Your task to perform on an android device: Open internet settings Image 0: 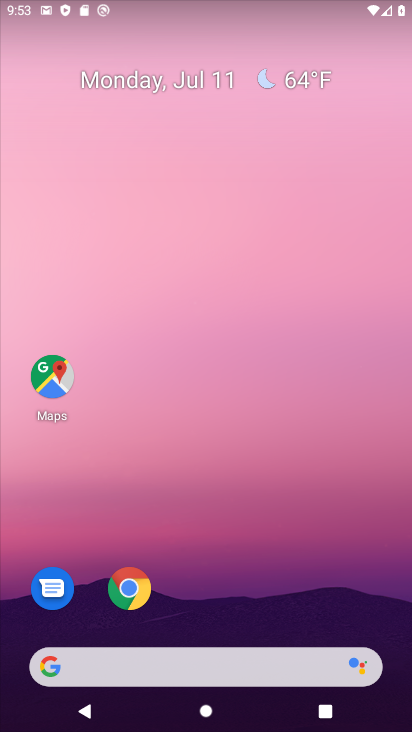
Step 0: drag from (205, 659) to (282, 73)
Your task to perform on an android device: Open internet settings Image 1: 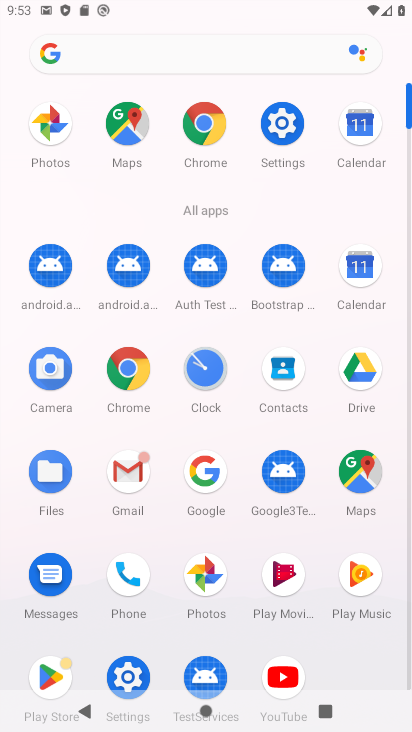
Step 1: click (124, 682)
Your task to perform on an android device: Open internet settings Image 2: 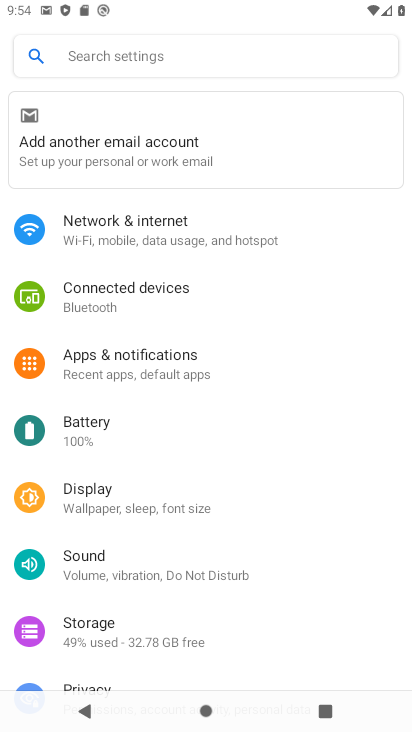
Step 2: click (161, 235)
Your task to perform on an android device: Open internet settings Image 3: 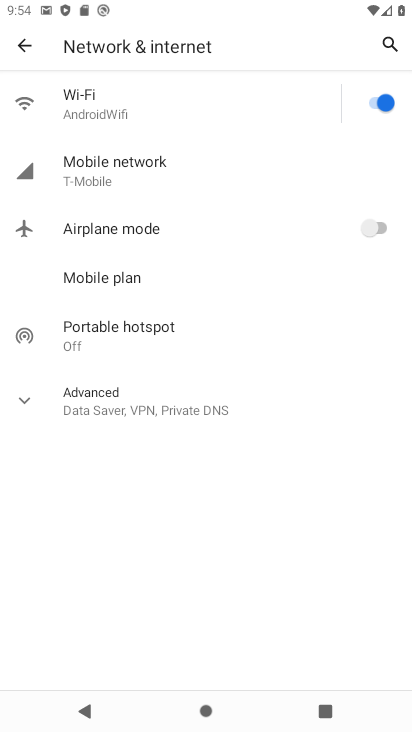
Step 3: click (142, 165)
Your task to perform on an android device: Open internet settings Image 4: 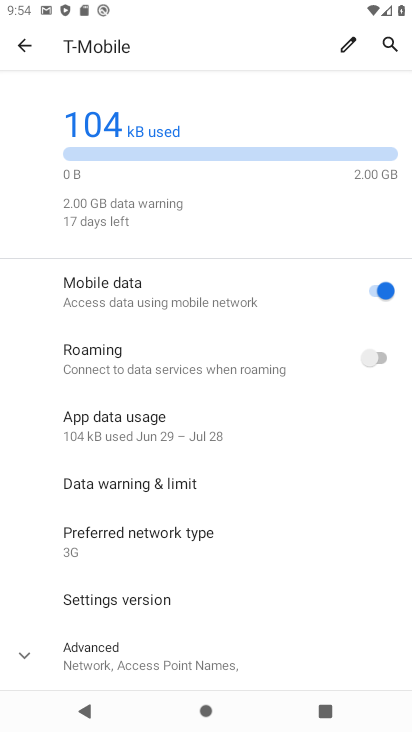
Step 4: task complete